Your task to perform on an android device: toggle data saver in the chrome app Image 0: 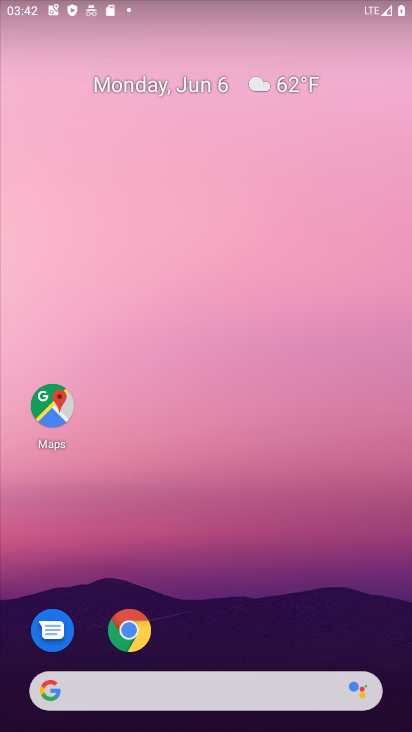
Step 0: click (139, 636)
Your task to perform on an android device: toggle data saver in the chrome app Image 1: 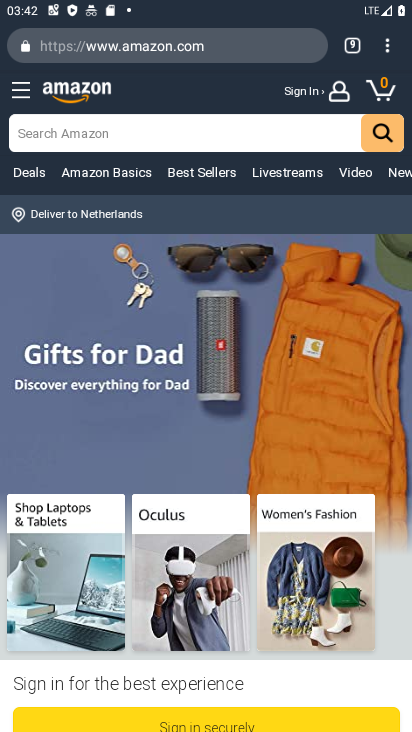
Step 1: drag from (384, 39) to (241, 541)
Your task to perform on an android device: toggle data saver in the chrome app Image 2: 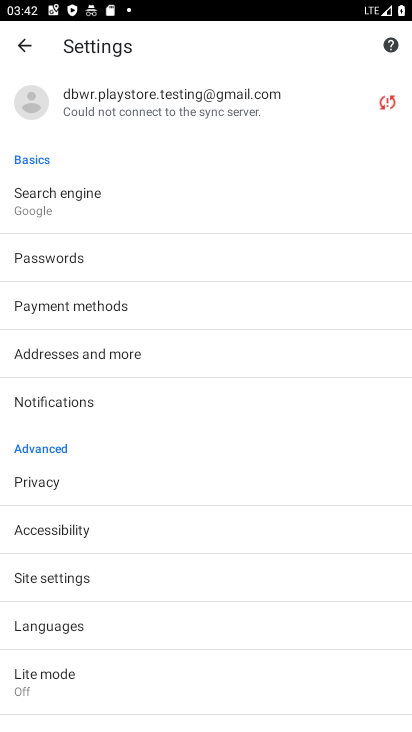
Step 2: click (74, 672)
Your task to perform on an android device: toggle data saver in the chrome app Image 3: 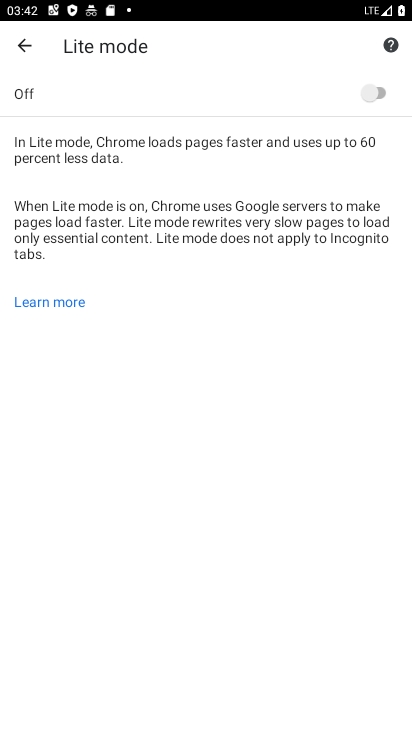
Step 3: click (328, 102)
Your task to perform on an android device: toggle data saver in the chrome app Image 4: 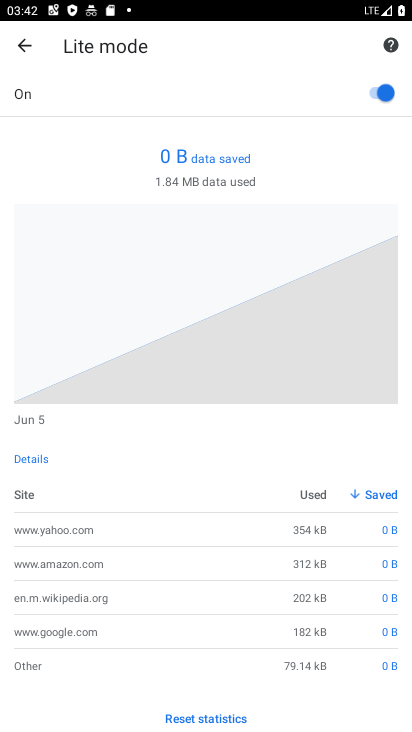
Step 4: task complete